Your task to perform on an android device: allow notifications from all sites in the chrome app Image 0: 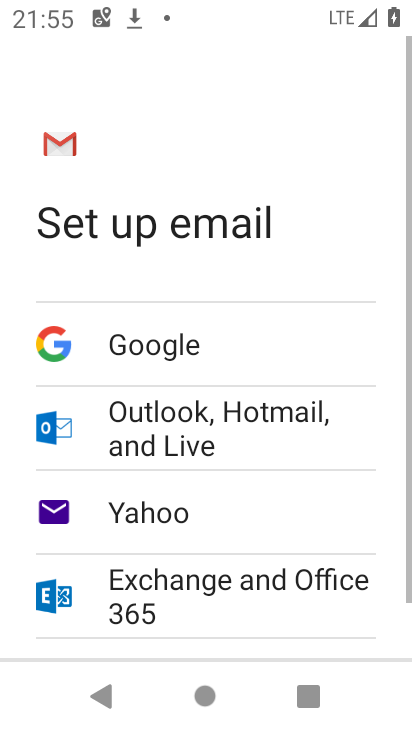
Step 0: press back button
Your task to perform on an android device: allow notifications from all sites in the chrome app Image 1: 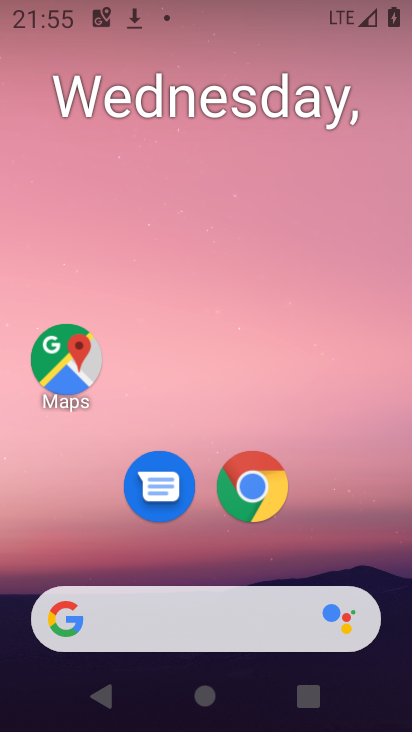
Step 1: click (254, 485)
Your task to perform on an android device: allow notifications from all sites in the chrome app Image 2: 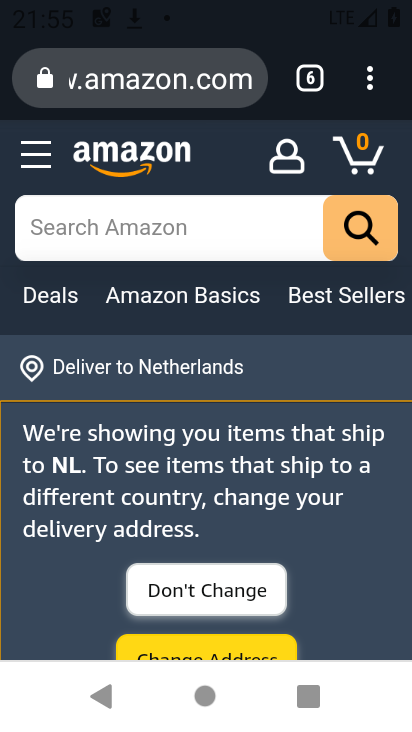
Step 2: drag from (368, 75) to (202, 556)
Your task to perform on an android device: allow notifications from all sites in the chrome app Image 3: 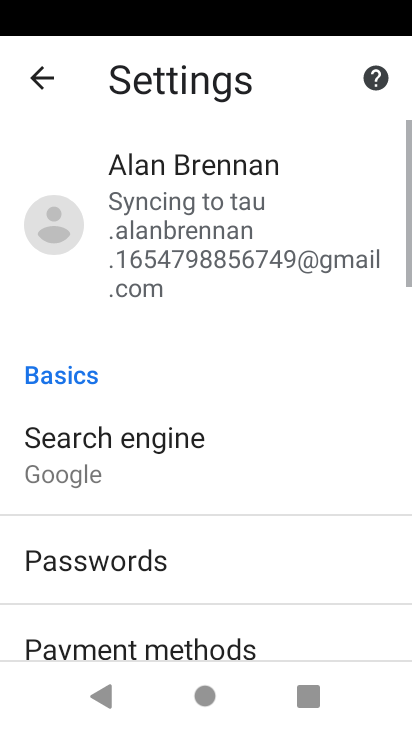
Step 3: drag from (202, 556) to (305, 25)
Your task to perform on an android device: allow notifications from all sites in the chrome app Image 4: 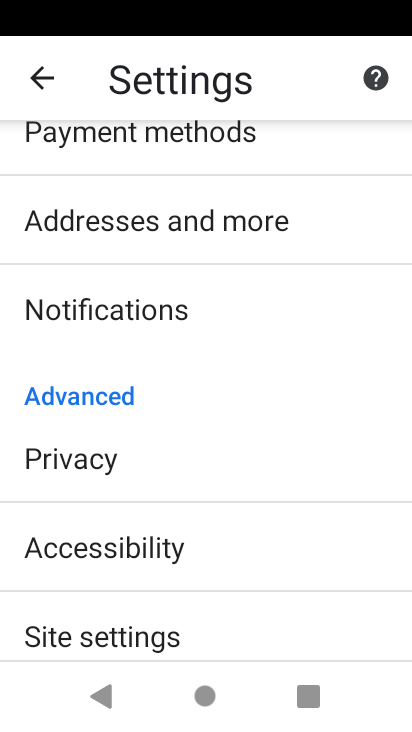
Step 4: click (69, 323)
Your task to perform on an android device: allow notifications from all sites in the chrome app Image 5: 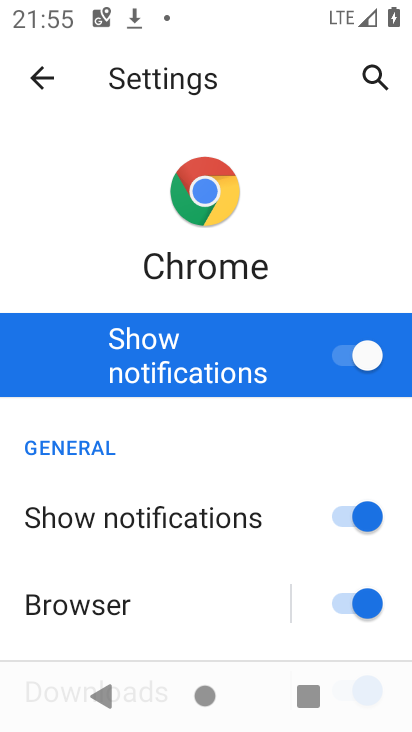
Step 5: task complete